Your task to perform on an android device: Show me productivity apps on the Play Store Image 0: 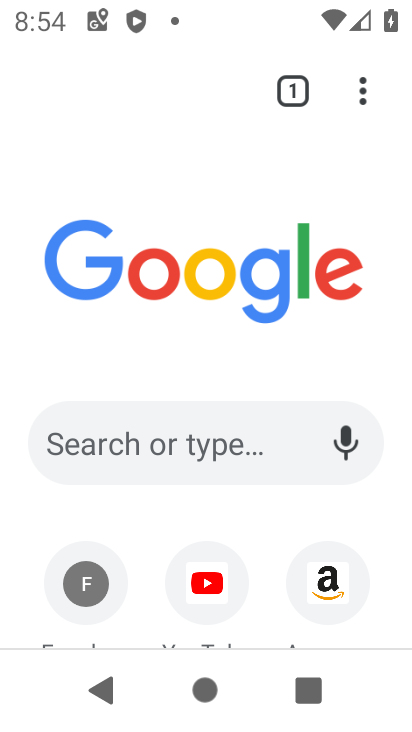
Step 0: press home button
Your task to perform on an android device: Show me productivity apps on the Play Store Image 1: 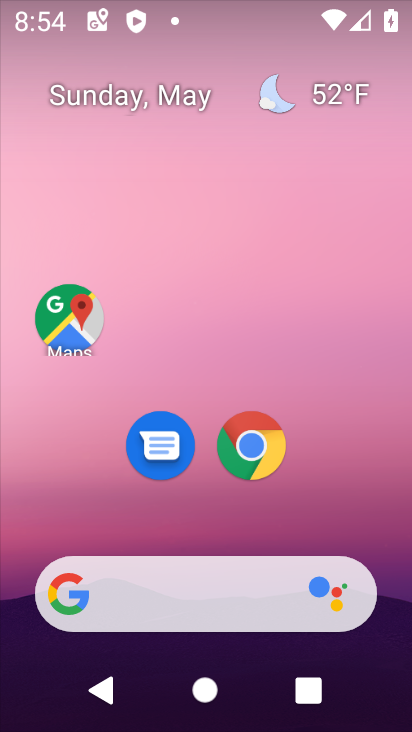
Step 1: drag from (330, 511) to (241, 122)
Your task to perform on an android device: Show me productivity apps on the Play Store Image 2: 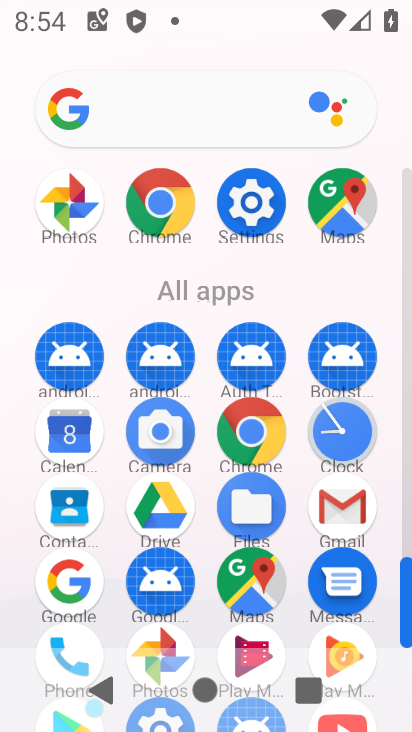
Step 2: click (408, 684)
Your task to perform on an android device: Show me productivity apps on the Play Store Image 3: 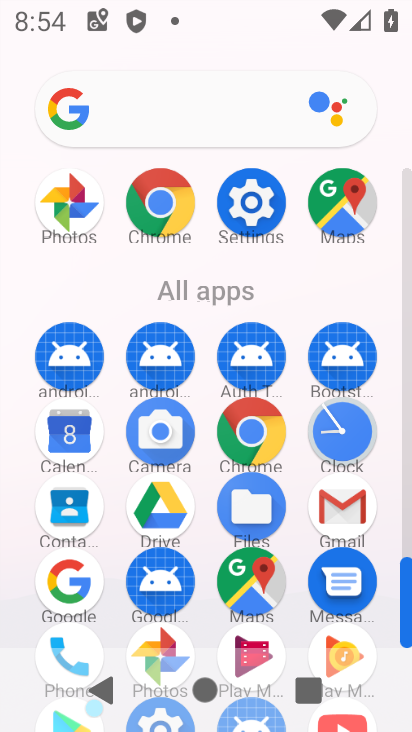
Step 3: click (405, 696)
Your task to perform on an android device: Show me productivity apps on the Play Store Image 4: 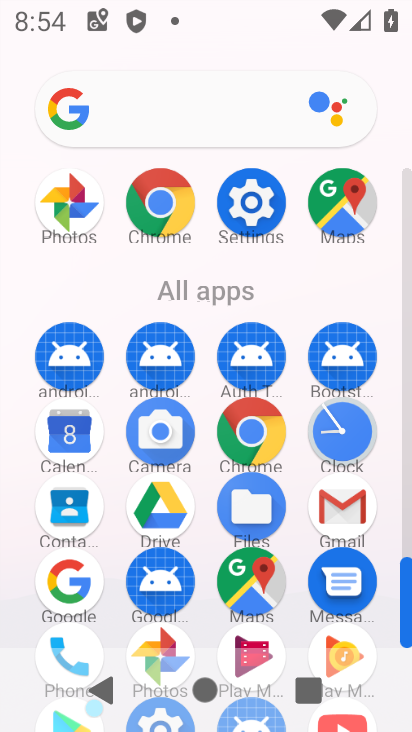
Step 4: drag from (407, 628) to (407, 692)
Your task to perform on an android device: Show me productivity apps on the Play Store Image 5: 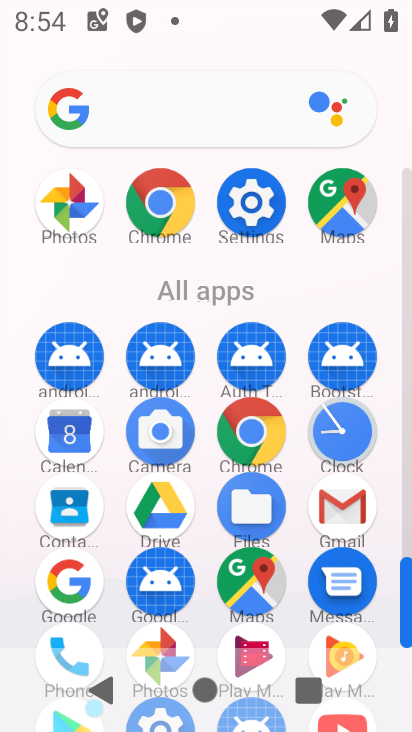
Step 5: click (407, 692)
Your task to perform on an android device: Show me productivity apps on the Play Store Image 6: 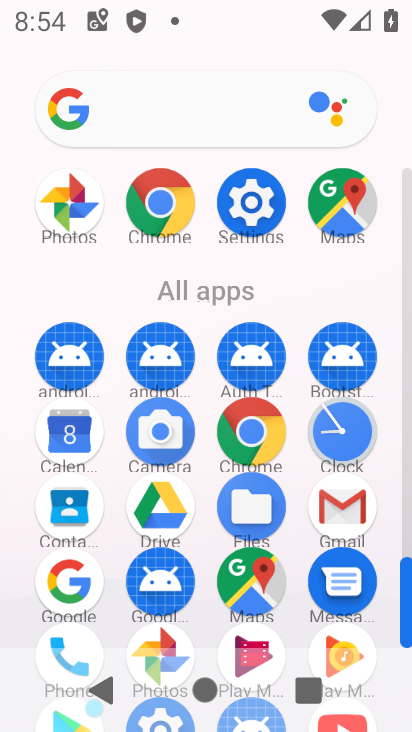
Step 6: drag from (406, 600) to (371, 727)
Your task to perform on an android device: Show me productivity apps on the Play Store Image 7: 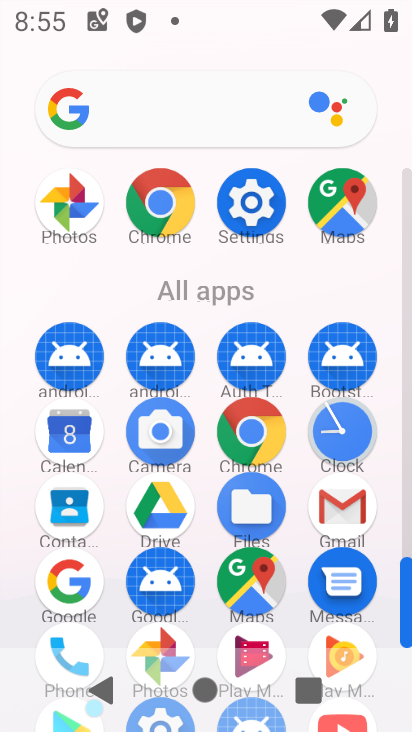
Step 7: drag from (200, 554) to (192, 160)
Your task to perform on an android device: Show me productivity apps on the Play Store Image 8: 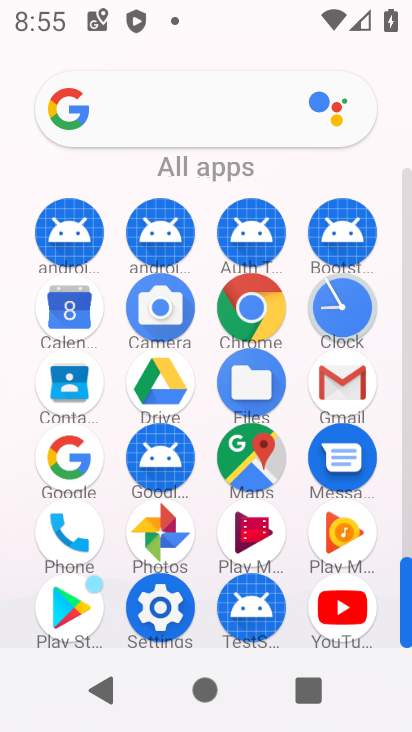
Step 8: click (63, 606)
Your task to perform on an android device: Show me productivity apps on the Play Store Image 9: 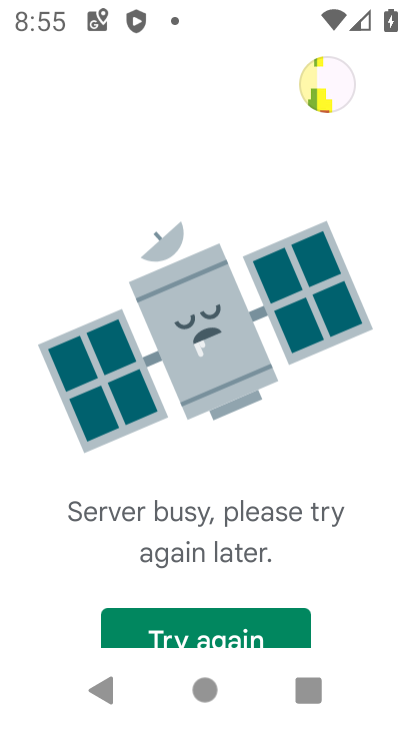
Step 9: click (219, 634)
Your task to perform on an android device: Show me productivity apps on the Play Store Image 10: 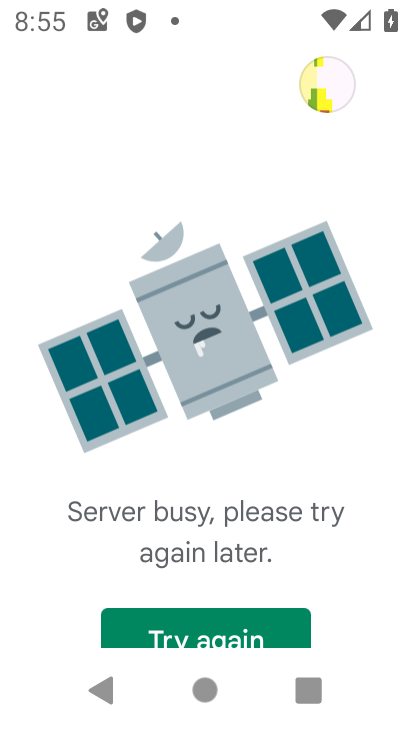
Step 10: click (219, 634)
Your task to perform on an android device: Show me productivity apps on the Play Store Image 11: 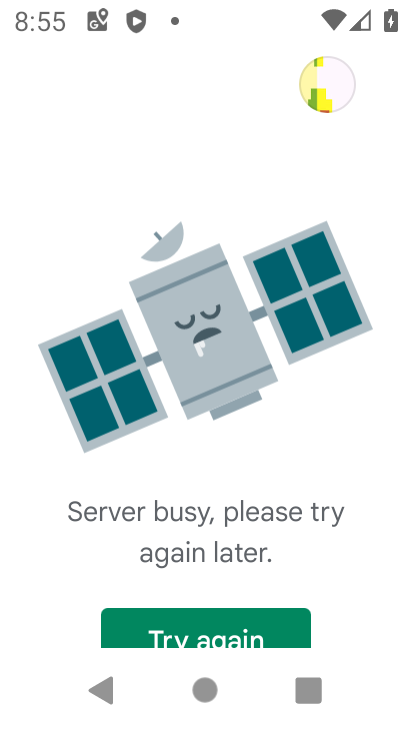
Step 11: task complete